Your task to perform on an android device: Go to battery settings Image 0: 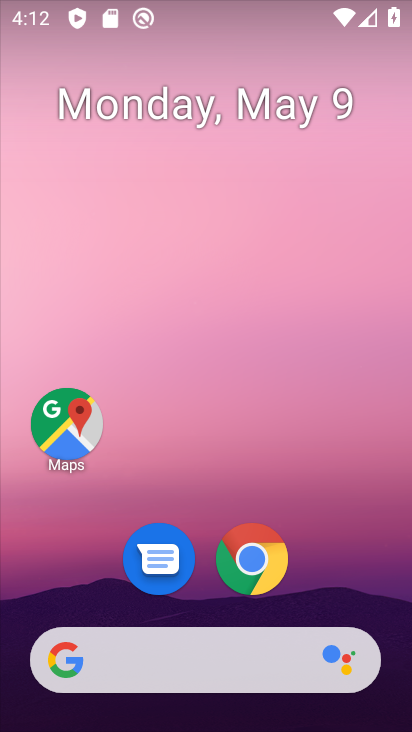
Step 0: drag from (345, 607) to (257, 0)
Your task to perform on an android device: Go to battery settings Image 1: 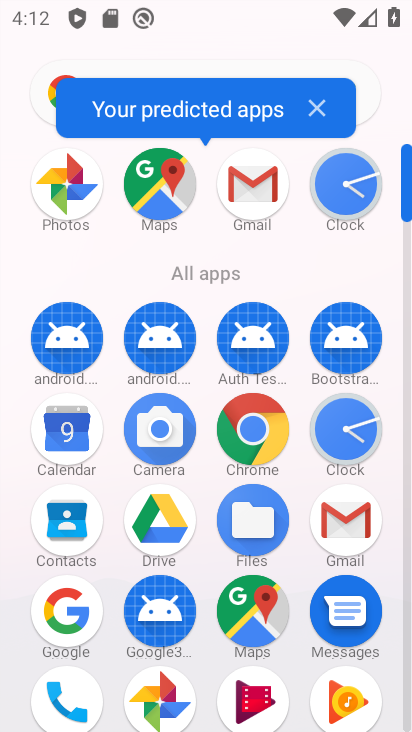
Step 1: drag from (198, 278) to (189, 8)
Your task to perform on an android device: Go to battery settings Image 2: 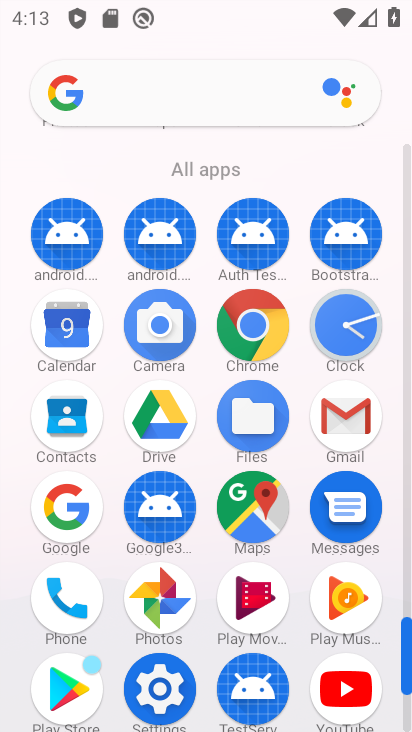
Step 2: click (166, 674)
Your task to perform on an android device: Go to battery settings Image 3: 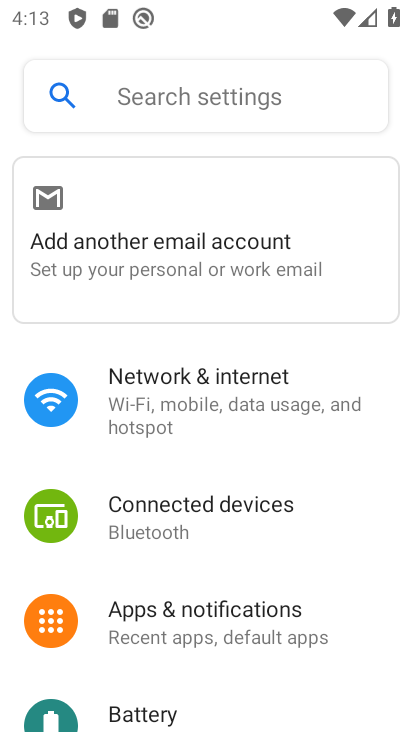
Step 3: drag from (156, 700) to (151, 188)
Your task to perform on an android device: Go to battery settings Image 4: 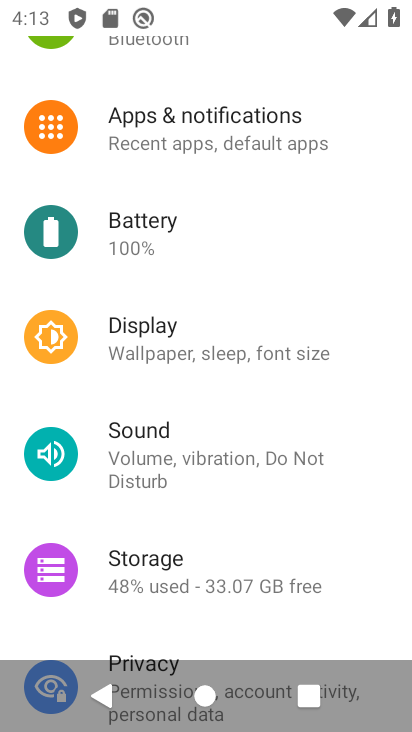
Step 4: click (140, 211)
Your task to perform on an android device: Go to battery settings Image 5: 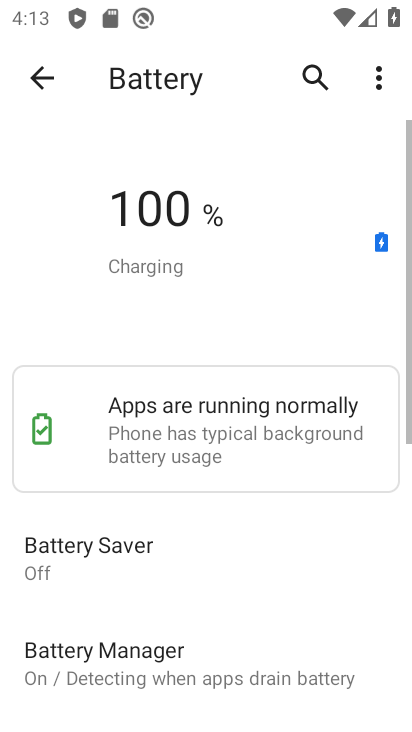
Step 5: task complete